Your task to perform on an android device: turn notification dots on Image 0: 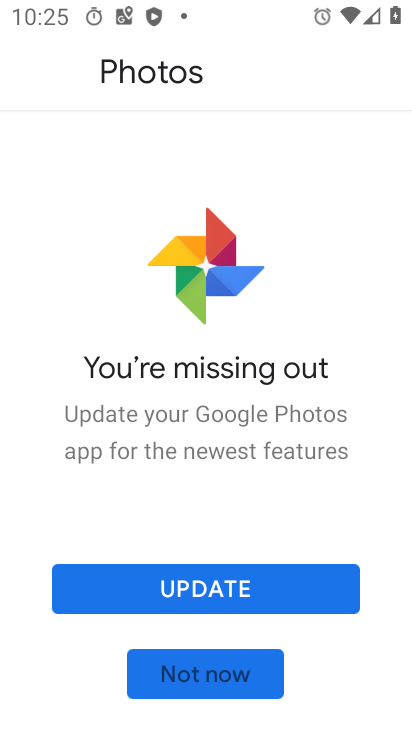
Step 0: click (221, 585)
Your task to perform on an android device: turn notification dots on Image 1: 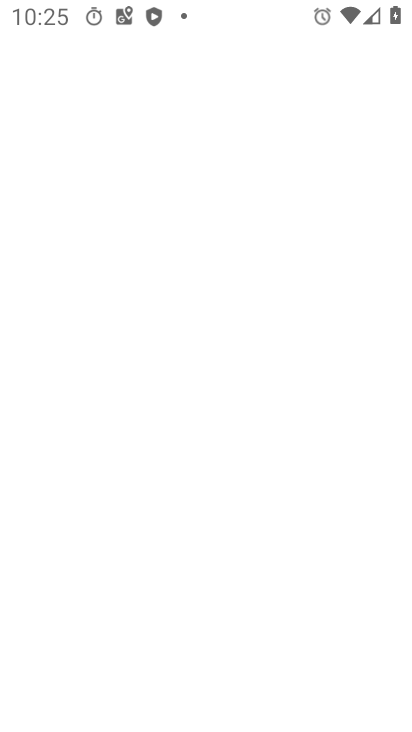
Step 1: press home button
Your task to perform on an android device: turn notification dots on Image 2: 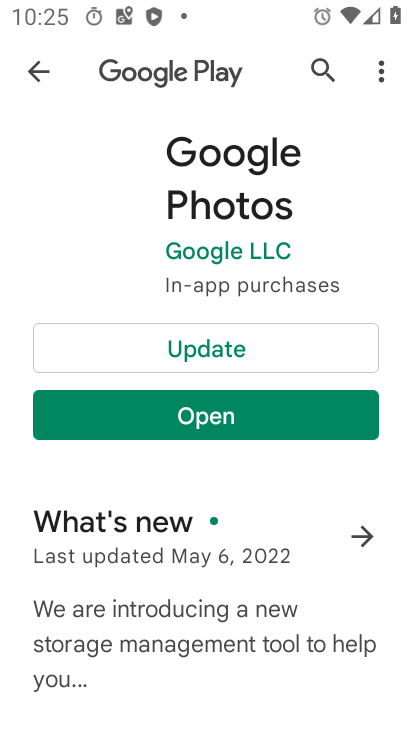
Step 2: press home button
Your task to perform on an android device: turn notification dots on Image 3: 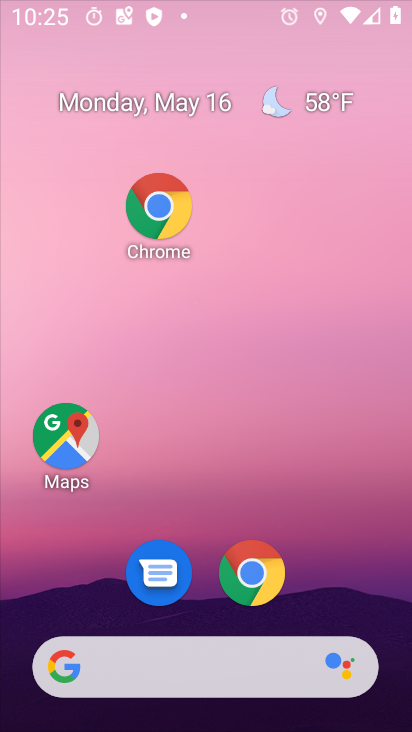
Step 3: press home button
Your task to perform on an android device: turn notification dots on Image 4: 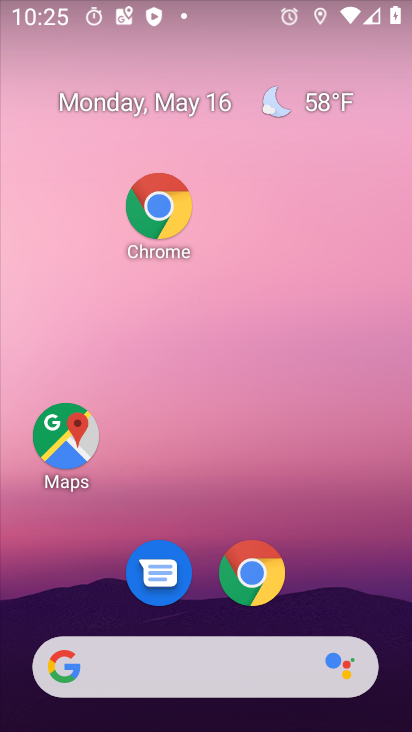
Step 4: drag from (230, 718) to (114, 70)
Your task to perform on an android device: turn notification dots on Image 5: 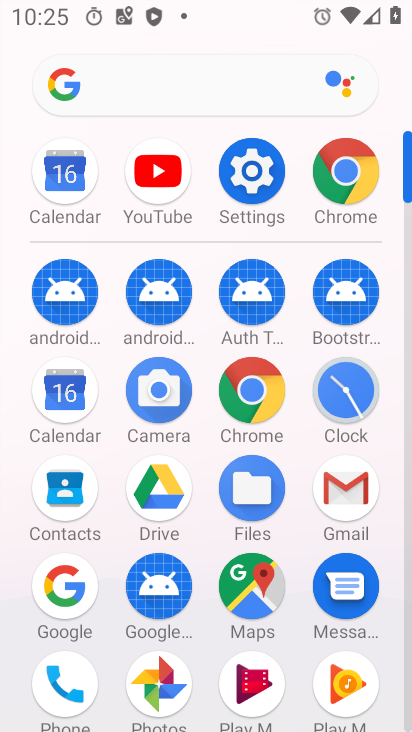
Step 5: click (252, 173)
Your task to perform on an android device: turn notification dots on Image 6: 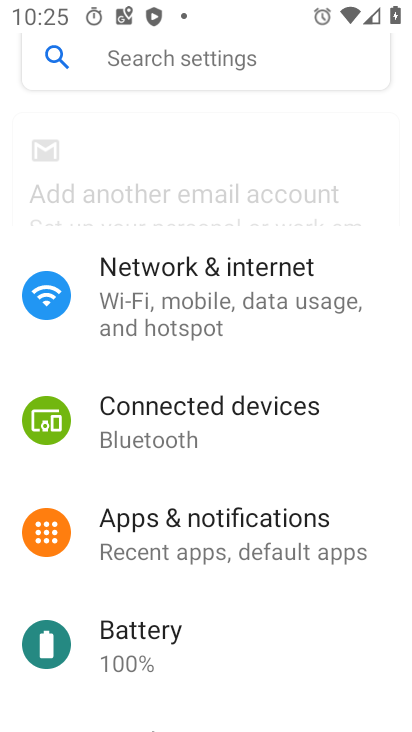
Step 6: click (264, 172)
Your task to perform on an android device: turn notification dots on Image 7: 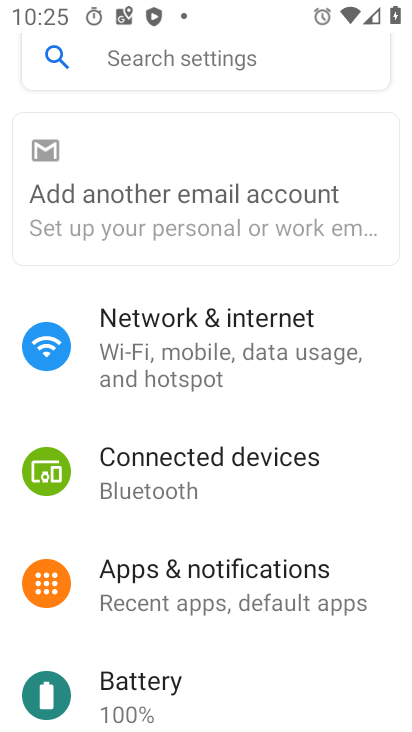
Step 7: click (264, 172)
Your task to perform on an android device: turn notification dots on Image 8: 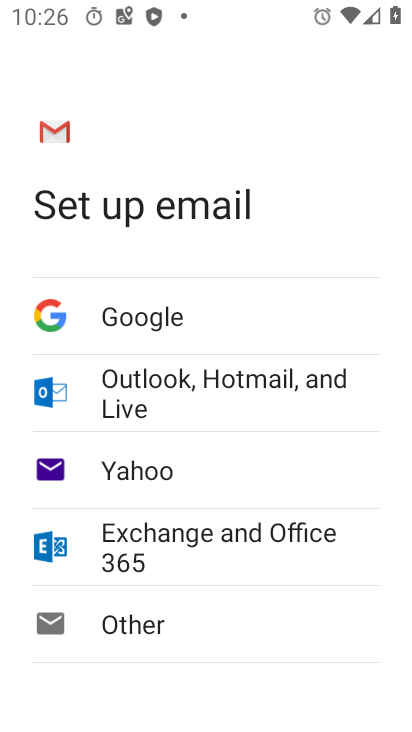
Step 8: press back button
Your task to perform on an android device: turn notification dots on Image 9: 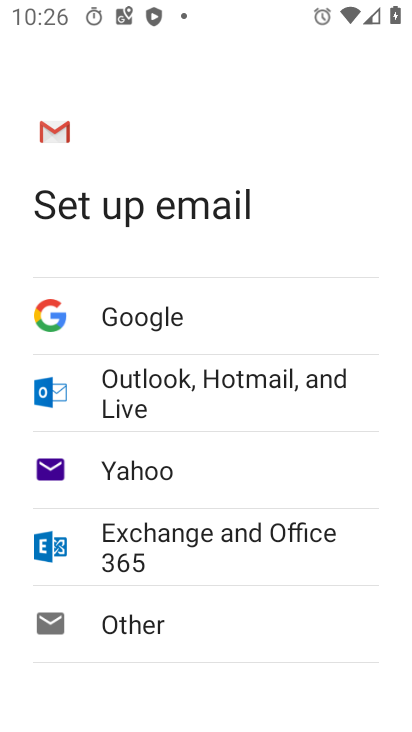
Step 9: press back button
Your task to perform on an android device: turn notification dots on Image 10: 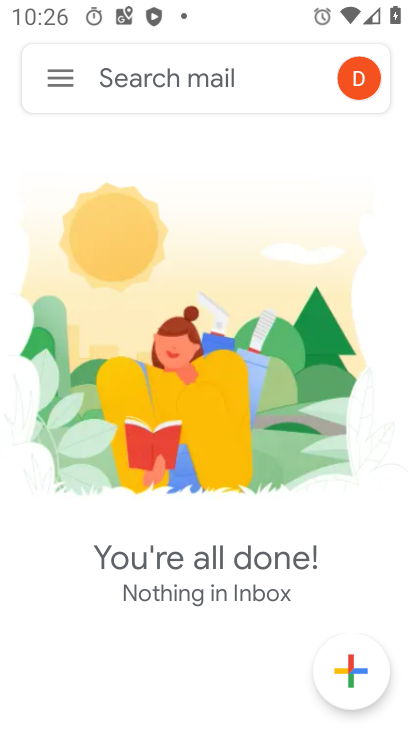
Step 10: press home button
Your task to perform on an android device: turn notification dots on Image 11: 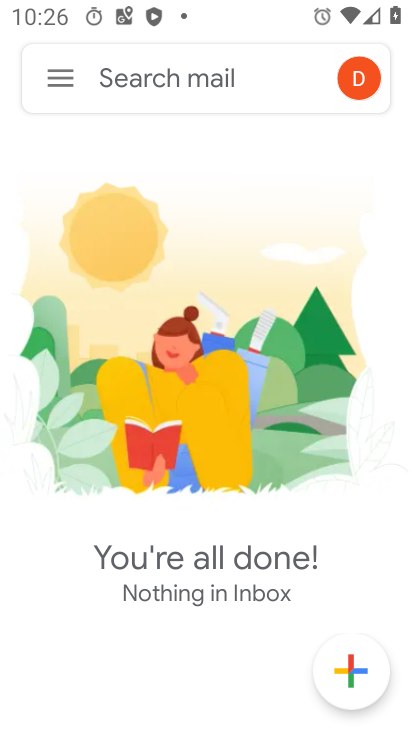
Step 11: press home button
Your task to perform on an android device: turn notification dots on Image 12: 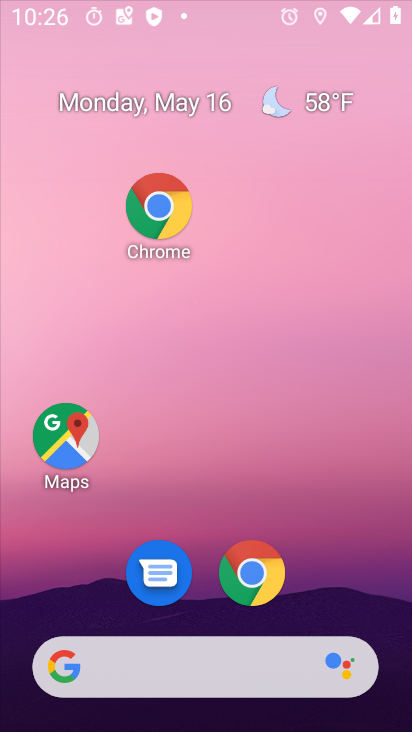
Step 12: press home button
Your task to perform on an android device: turn notification dots on Image 13: 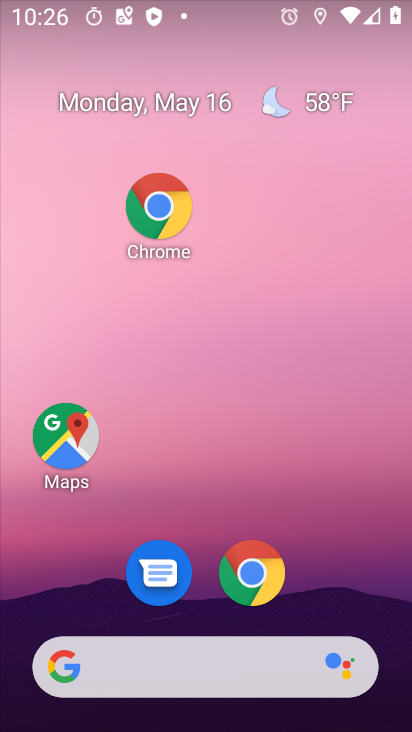
Step 13: drag from (219, 589) to (38, 43)
Your task to perform on an android device: turn notification dots on Image 14: 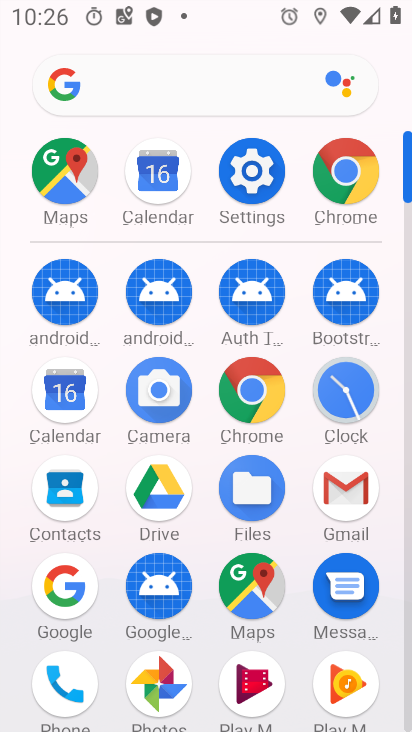
Step 14: click (238, 188)
Your task to perform on an android device: turn notification dots on Image 15: 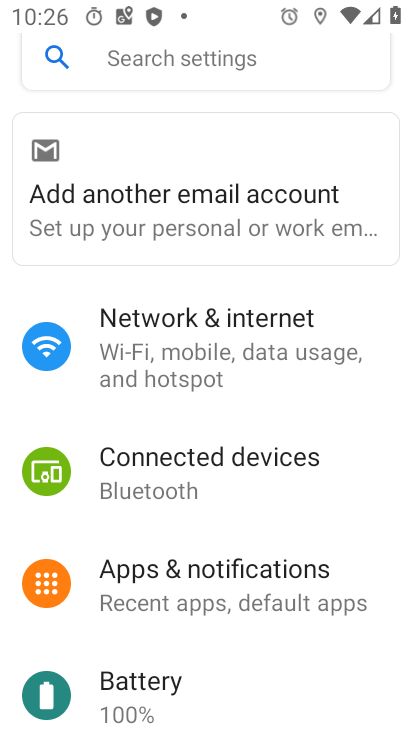
Step 15: click (250, 178)
Your task to perform on an android device: turn notification dots on Image 16: 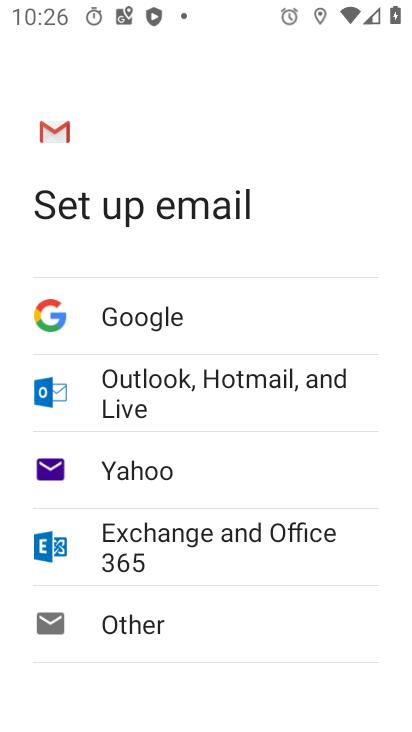
Step 16: press back button
Your task to perform on an android device: turn notification dots on Image 17: 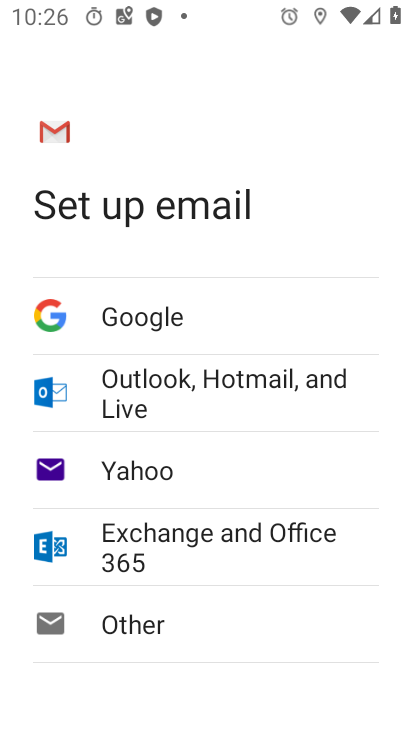
Step 17: press back button
Your task to perform on an android device: turn notification dots on Image 18: 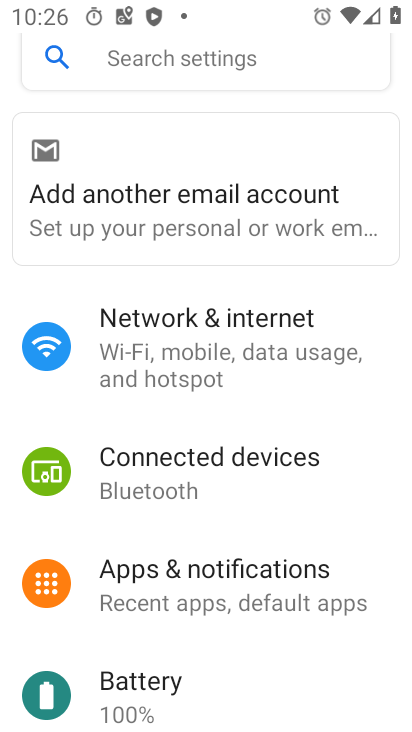
Step 18: click (182, 569)
Your task to perform on an android device: turn notification dots on Image 19: 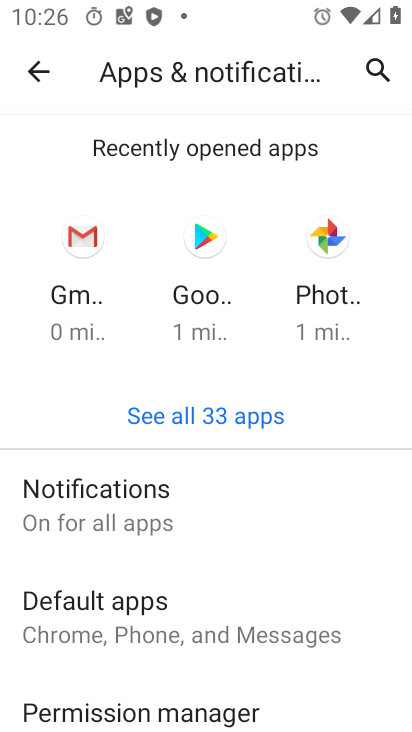
Step 19: drag from (173, 558) to (168, 98)
Your task to perform on an android device: turn notification dots on Image 20: 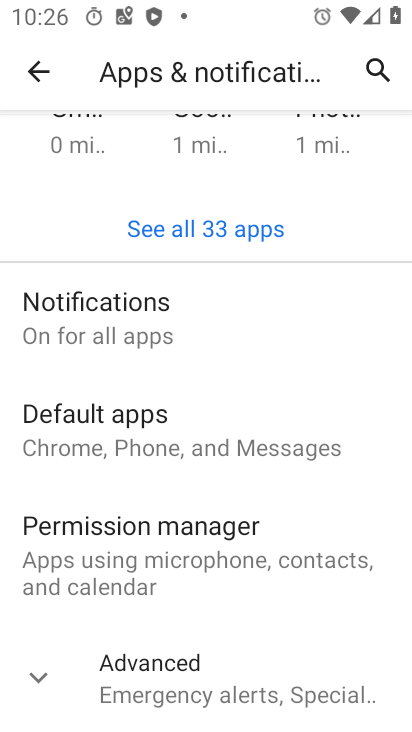
Step 20: click (93, 325)
Your task to perform on an android device: turn notification dots on Image 21: 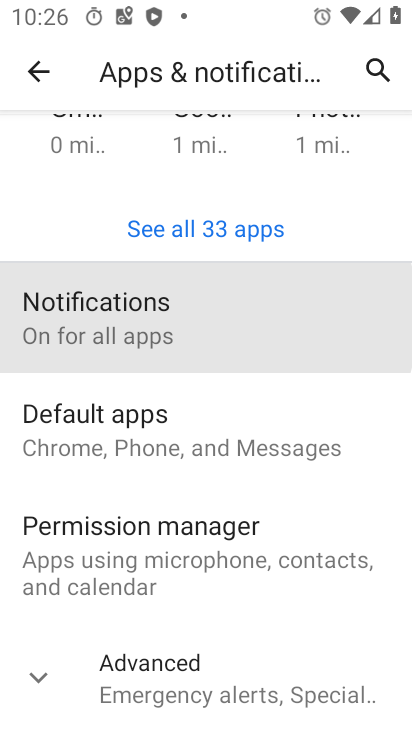
Step 21: click (95, 324)
Your task to perform on an android device: turn notification dots on Image 22: 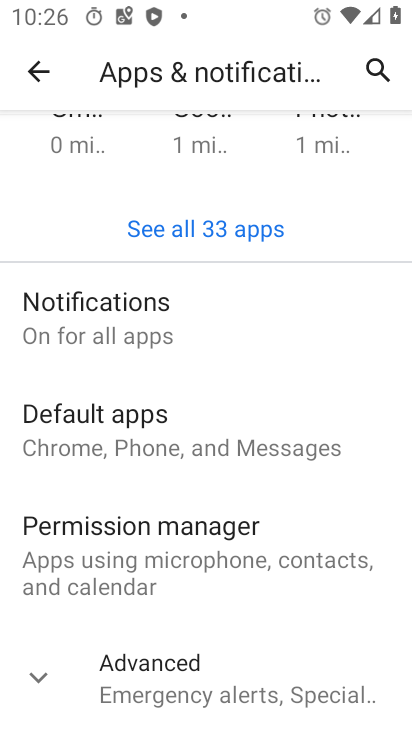
Step 22: click (95, 324)
Your task to perform on an android device: turn notification dots on Image 23: 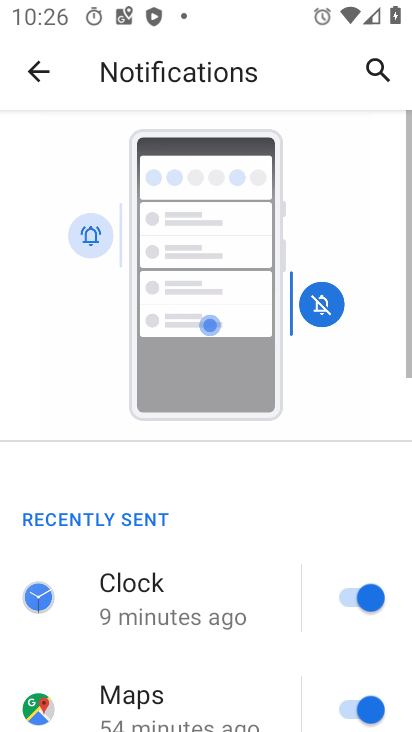
Step 23: drag from (226, 619) to (185, 229)
Your task to perform on an android device: turn notification dots on Image 24: 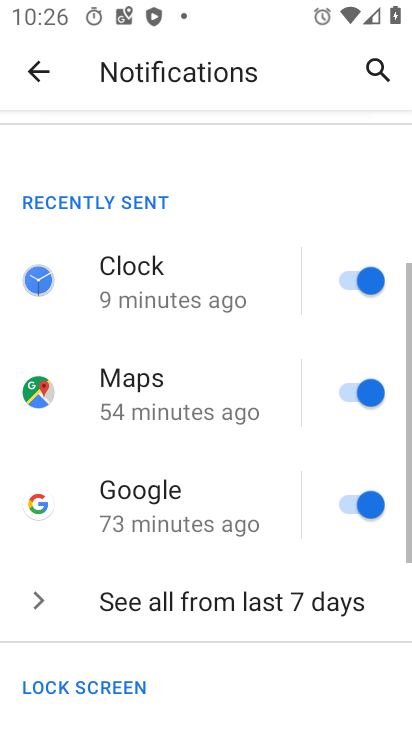
Step 24: drag from (252, 481) to (252, 0)
Your task to perform on an android device: turn notification dots on Image 25: 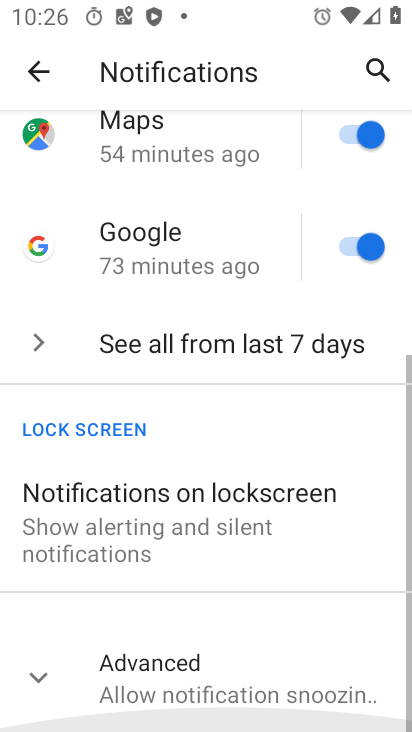
Step 25: drag from (290, 435) to (290, 60)
Your task to perform on an android device: turn notification dots on Image 26: 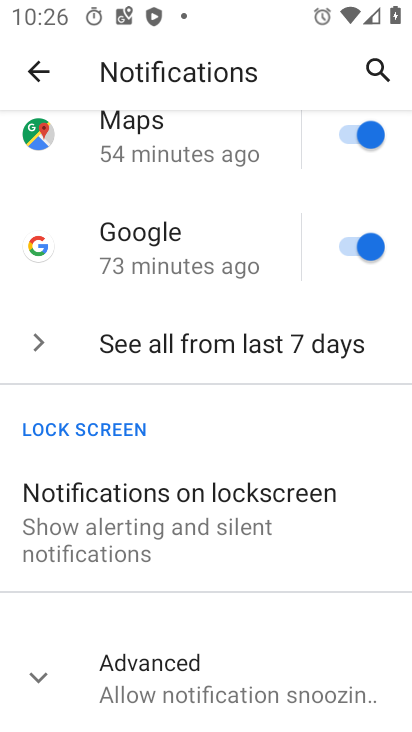
Step 26: click (177, 672)
Your task to perform on an android device: turn notification dots on Image 27: 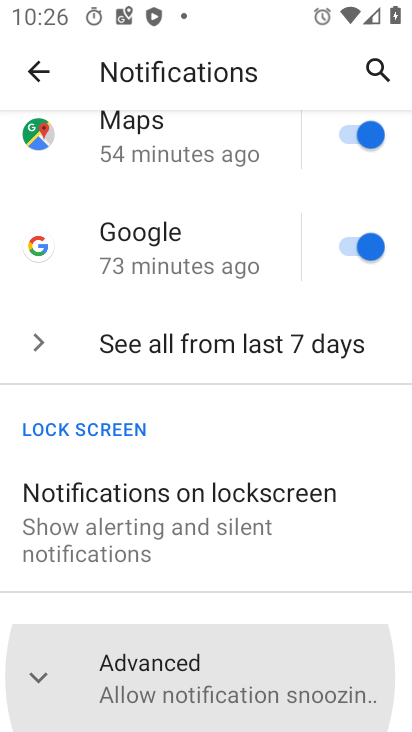
Step 27: click (181, 674)
Your task to perform on an android device: turn notification dots on Image 28: 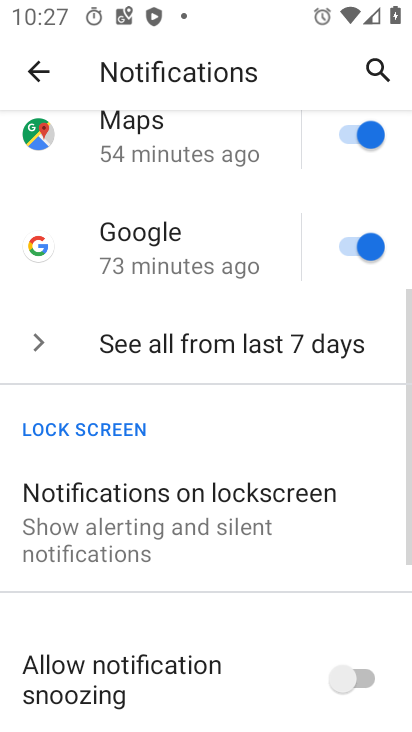
Step 28: drag from (241, 556) to (198, 54)
Your task to perform on an android device: turn notification dots on Image 29: 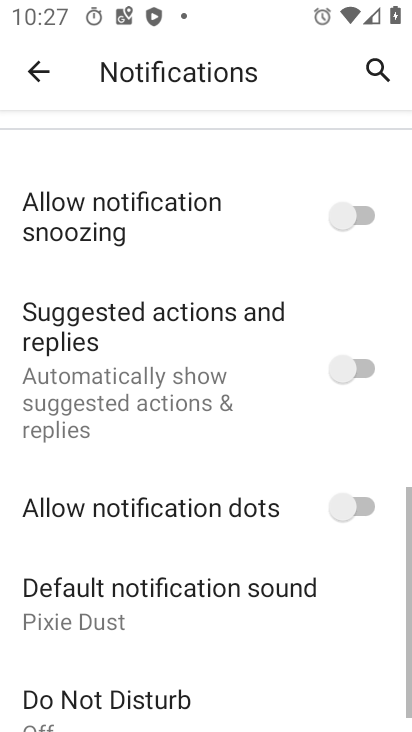
Step 29: drag from (224, 469) to (212, 66)
Your task to perform on an android device: turn notification dots on Image 30: 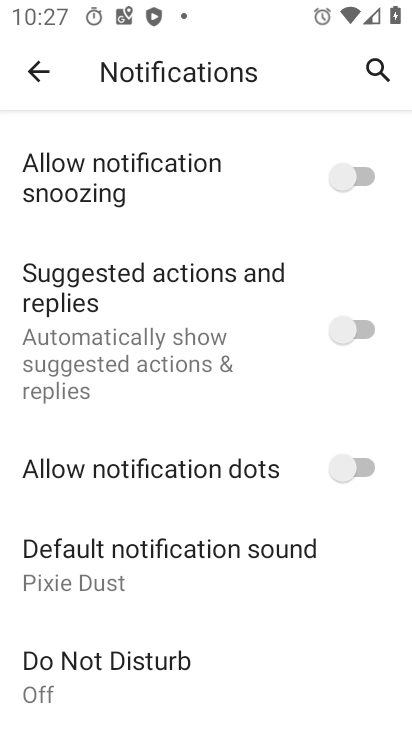
Step 30: click (334, 469)
Your task to perform on an android device: turn notification dots on Image 31: 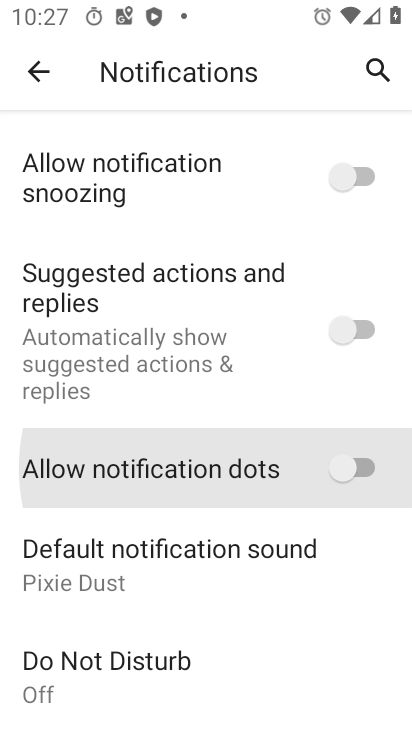
Step 31: click (334, 469)
Your task to perform on an android device: turn notification dots on Image 32: 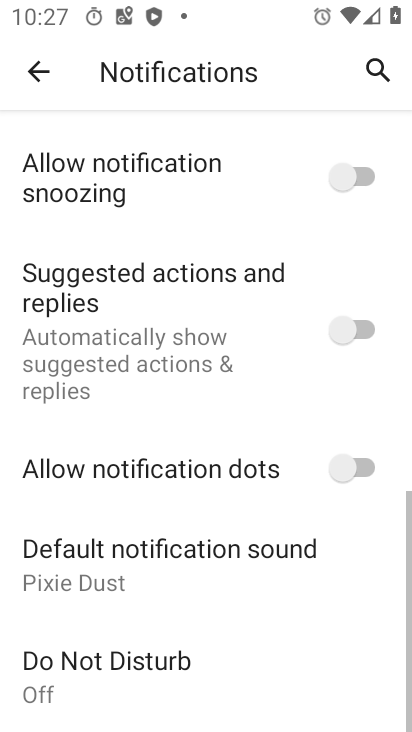
Step 32: click (347, 472)
Your task to perform on an android device: turn notification dots on Image 33: 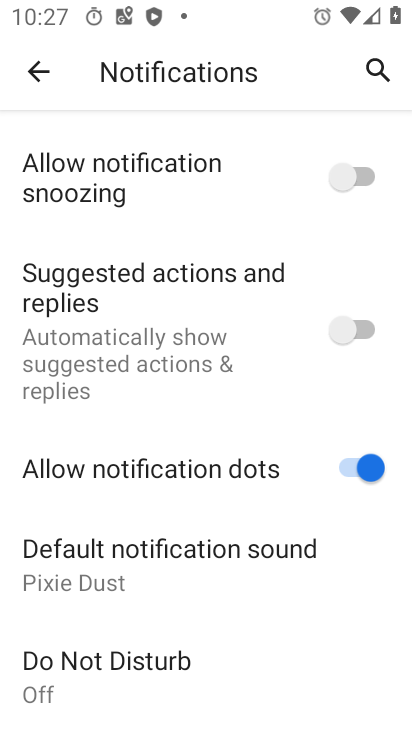
Step 33: task complete